Your task to perform on an android device: toggle priority inbox in the gmail app Image 0: 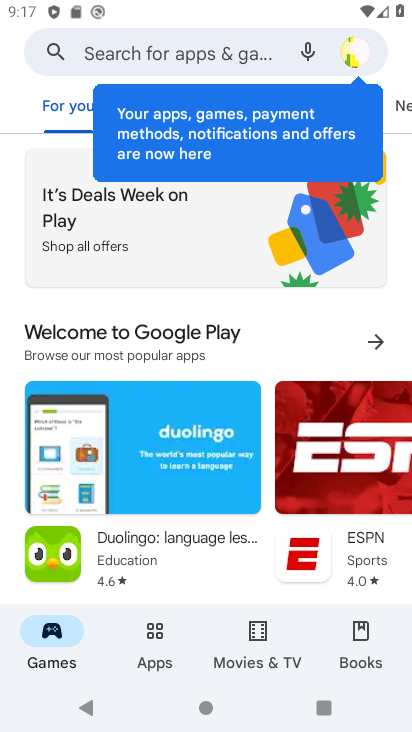
Step 0: press home button
Your task to perform on an android device: toggle priority inbox in the gmail app Image 1: 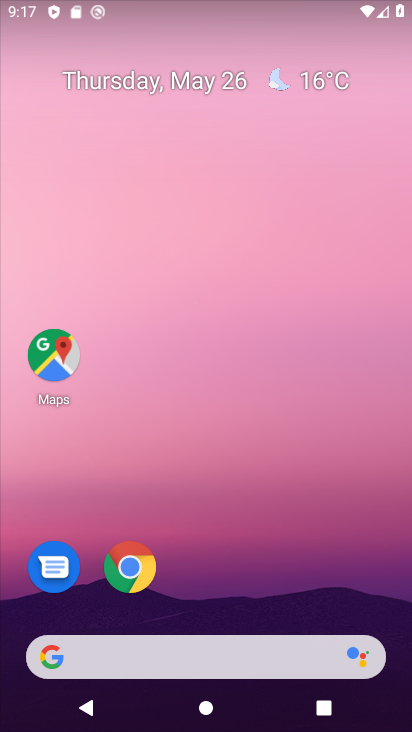
Step 1: drag from (394, 674) to (188, 59)
Your task to perform on an android device: toggle priority inbox in the gmail app Image 2: 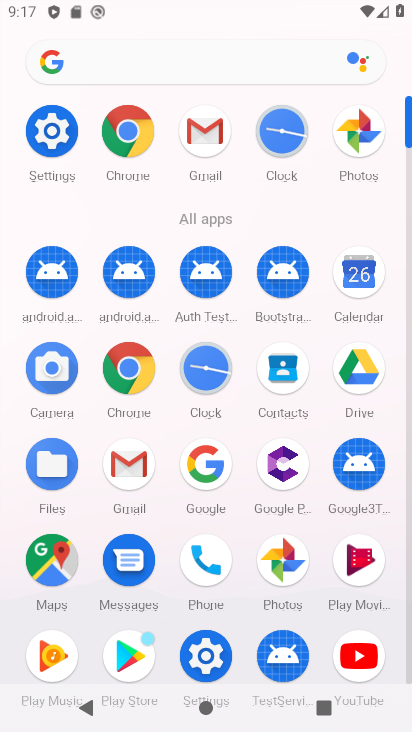
Step 2: click (207, 135)
Your task to perform on an android device: toggle priority inbox in the gmail app Image 3: 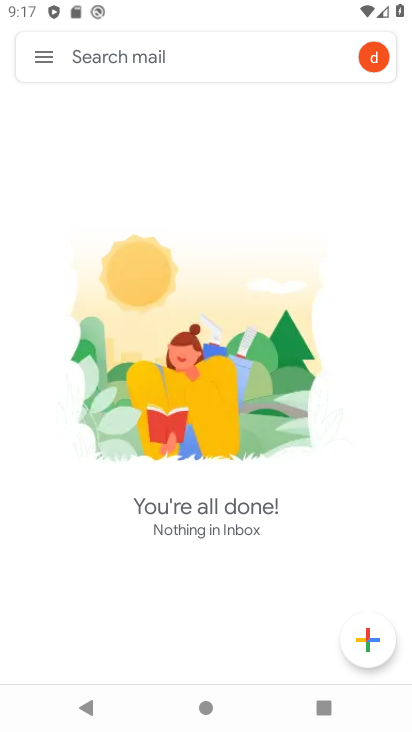
Step 3: click (35, 55)
Your task to perform on an android device: toggle priority inbox in the gmail app Image 4: 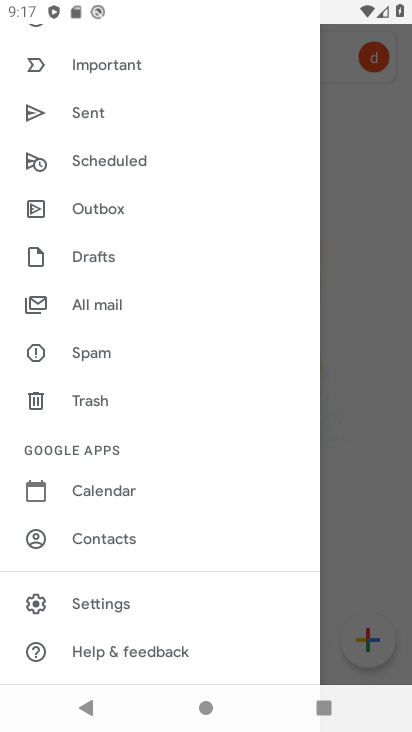
Step 4: click (117, 598)
Your task to perform on an android device: toggle priority inbox in the gmail app Image 5: 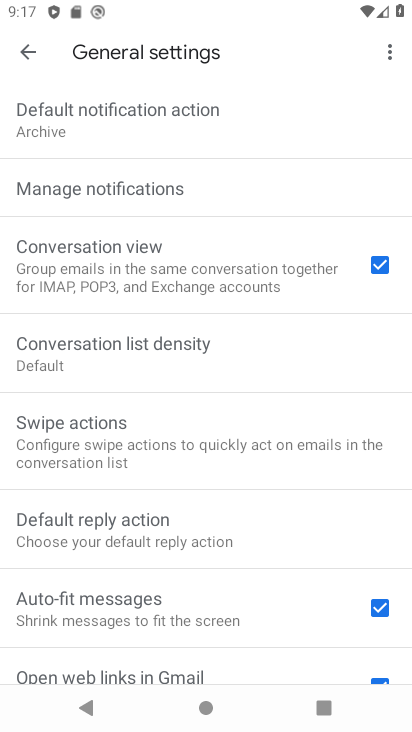
Step 5: click (26, 49)
Your task to perform on an android device: toggle priority inbox in the gmail app Image 6: 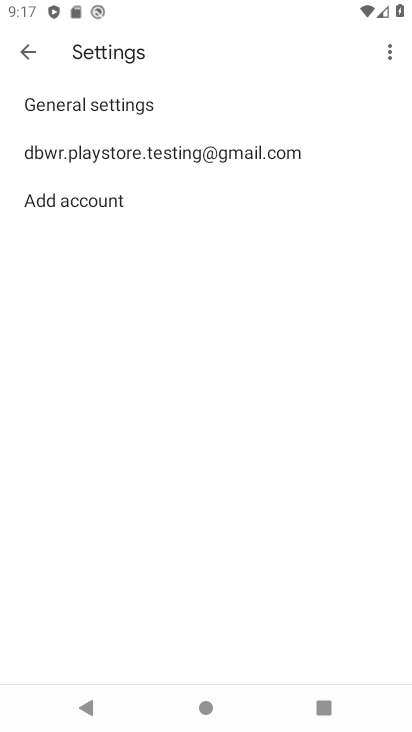
Step 6: click (71, 141)
Your task to perform on an android device: toggle priority inbox in the gmail app Image 7: 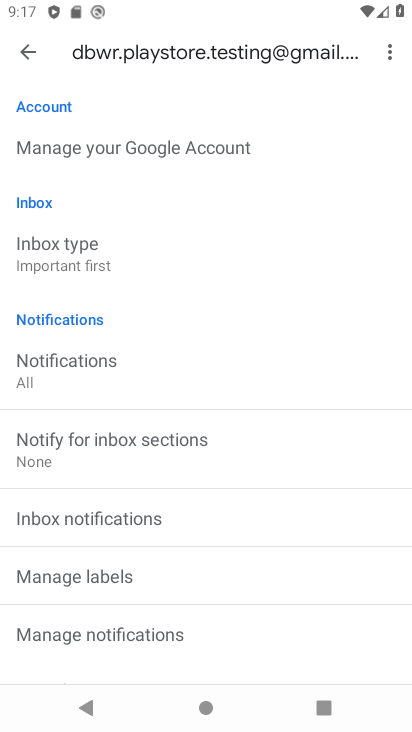
Step 7: click (61, 250)
Your task to perform on an android device: toggle priority inbox in the gmail app Image 8: 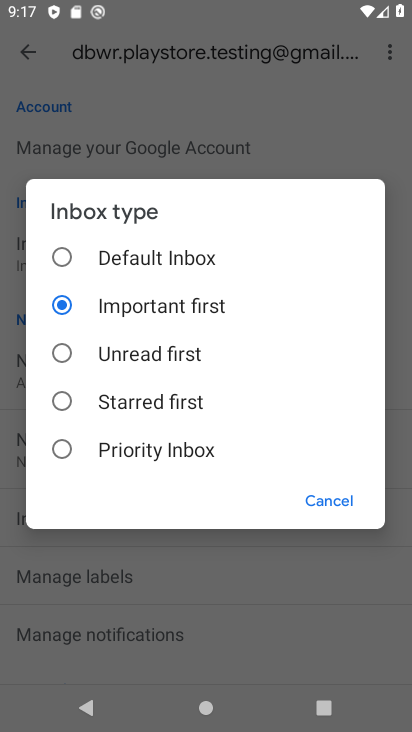
Step 8: click (64, 444)
Your task to perform on an android device: toggle priority inbox in the gmail app Image 9: 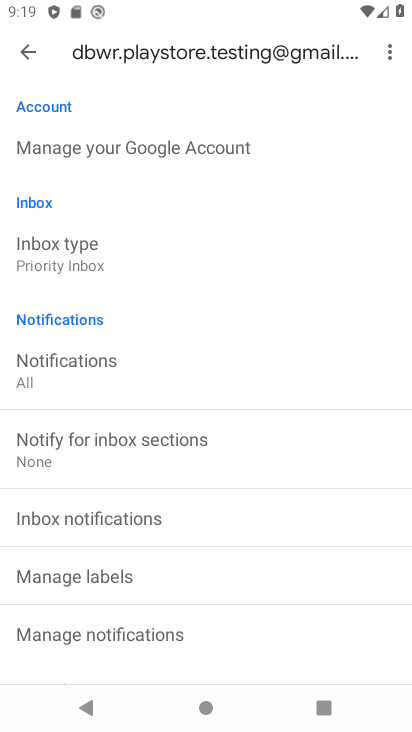
Step 9: task complete